Your task to perform on an android device: toggle location history Image 0: 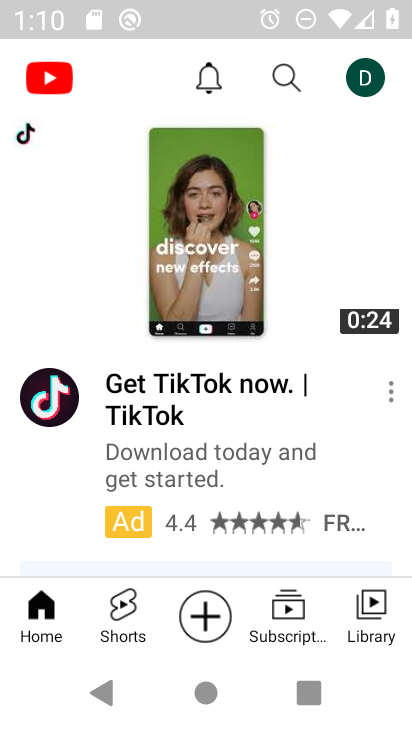
Step 0: press home button
Your task to perform on an android device: toggle location history Image 1: 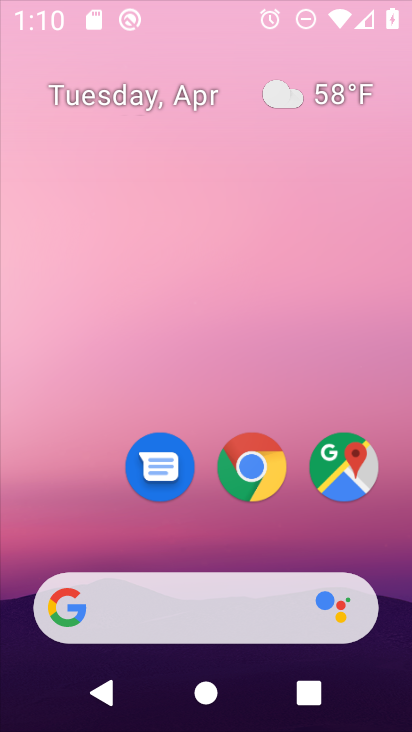
Step 1: drag from (162, 76) to (185, 452)
Your task to perform on an android device: toggle location history Image 2: 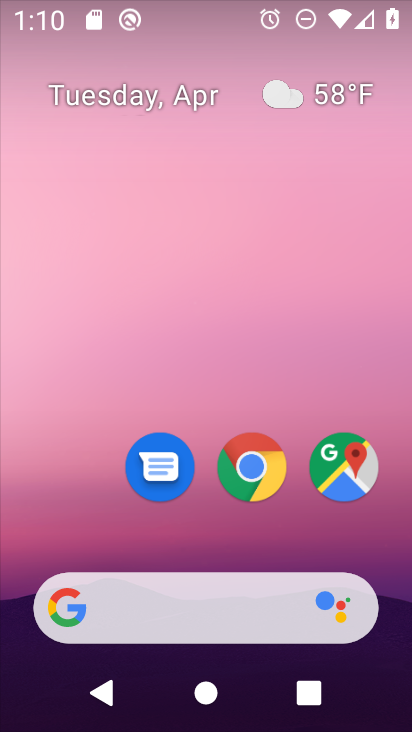
Step 2: drag from (223, 11) to (211, 575)
Your task to perform on an android device: toggle location history Image 3: 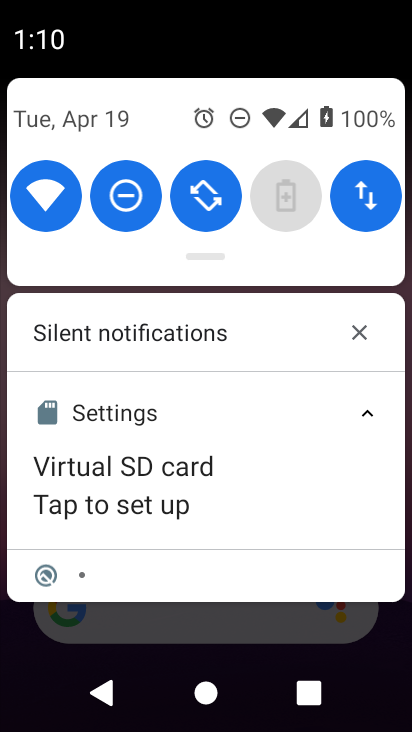
Step 3: drag from (197, 98) to (295, 629)
Your task to perform on an android device: toggle location history Image 4: 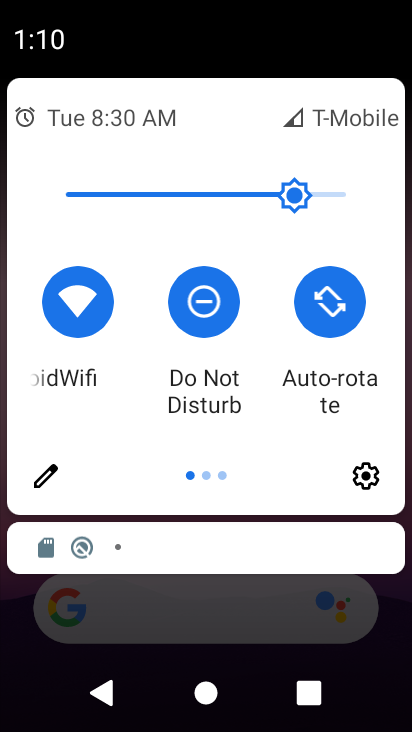
Step 4: click (364, 479)
Your task to perform on an android device: toggle location history Image 5: 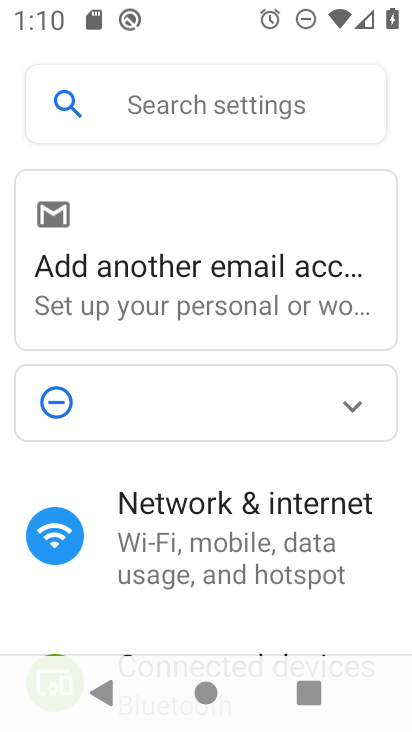
Step 5: drag from (209, 537) to (196, 164)
Your task to perform on an android device: toggle location history Image 6: 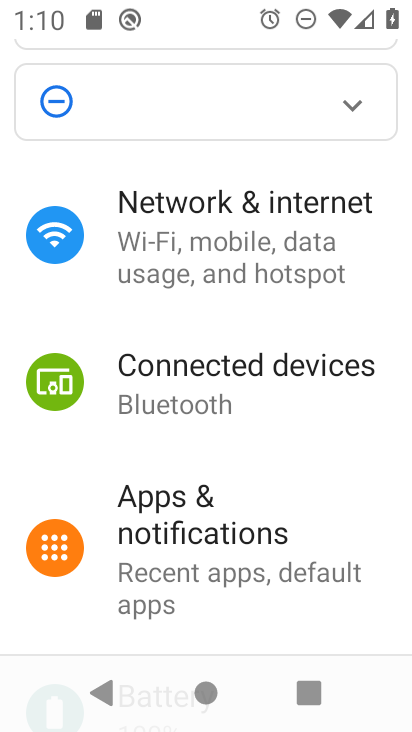
Step 6: drag from (199, 579) to (183, 65)
Your task to perform on an android device: toggle location history Image 7: 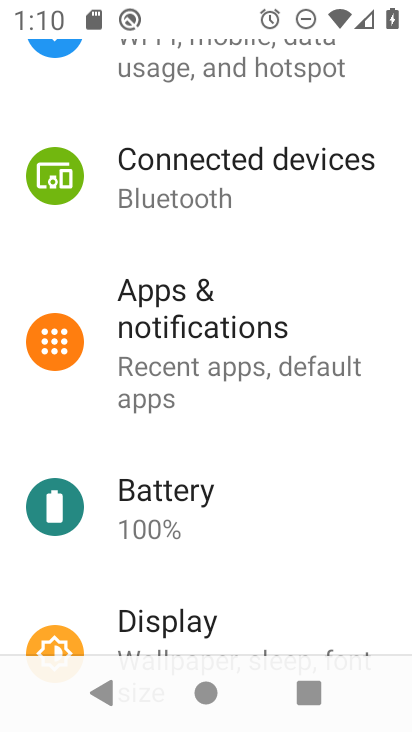
Step 7: drag from (192, 579) to (189, 57)
Your task to perform on an android device: toggle location history Image 8: 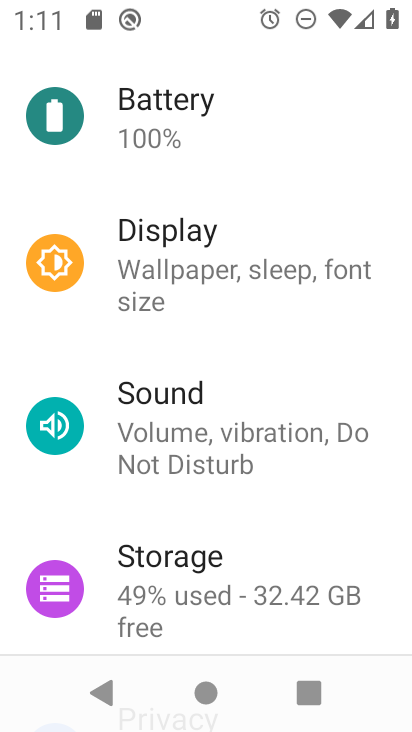
Step 8: drag from (159, 493) to (198, 3)
Your task to perform on an android device: toggle location history Image 9: 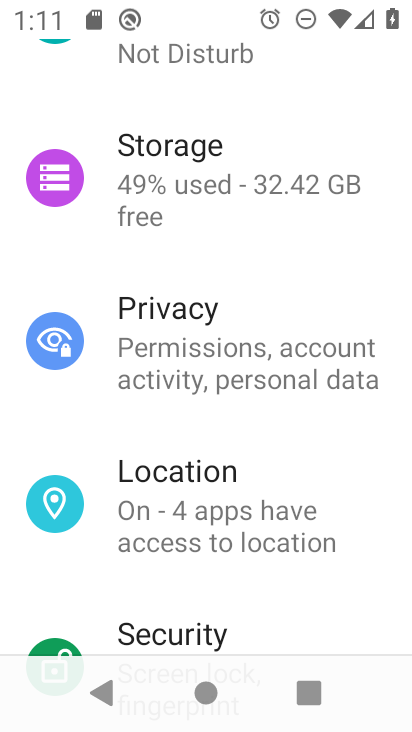
Step 9: click (145, 493)
Your task to perform on an android device: toggle location history Image 10: 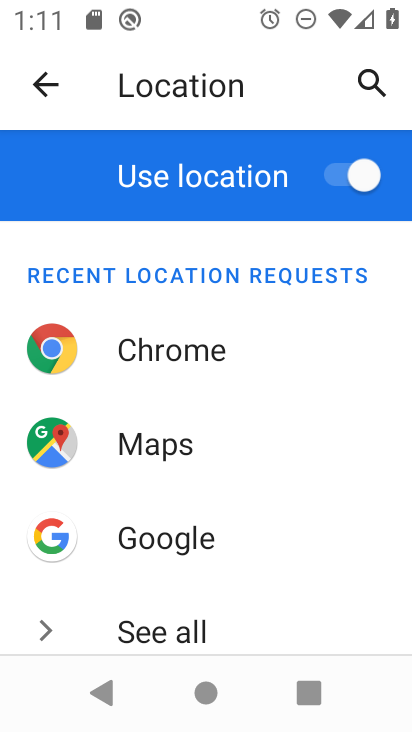
Step 10: drag from (219, 577) to (241, 83)
Your task to perform on an android device: toggle location history Image 11: 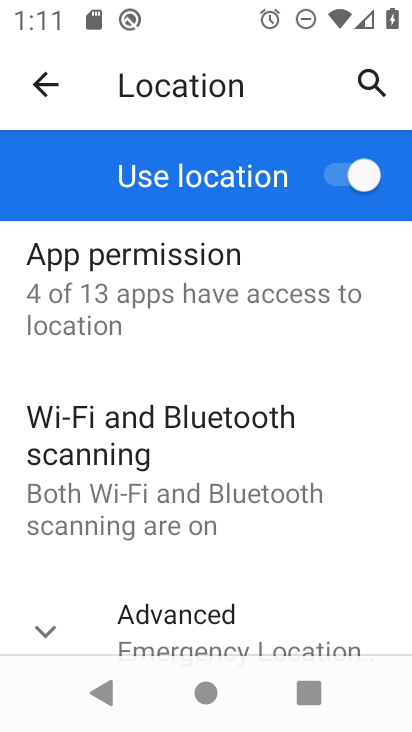
Step 11: drag from (263, 322) to (237, 589)
Your task to perform on an android device: toggle location history Image 12: 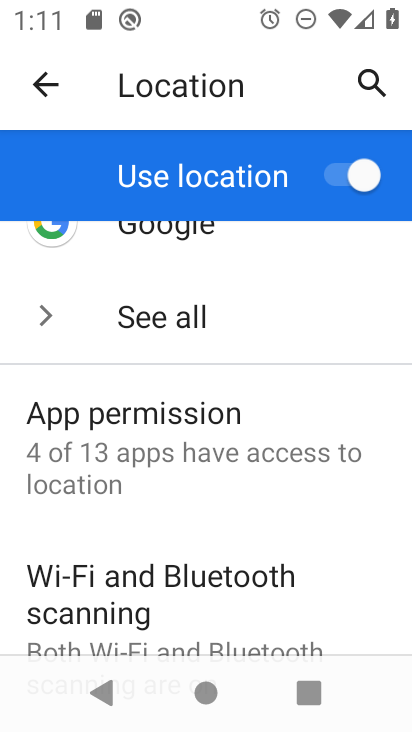
Step 12: drag from (177, 526) to (160, 187)
Your task to perform on an android device: toggle location history Image 13: 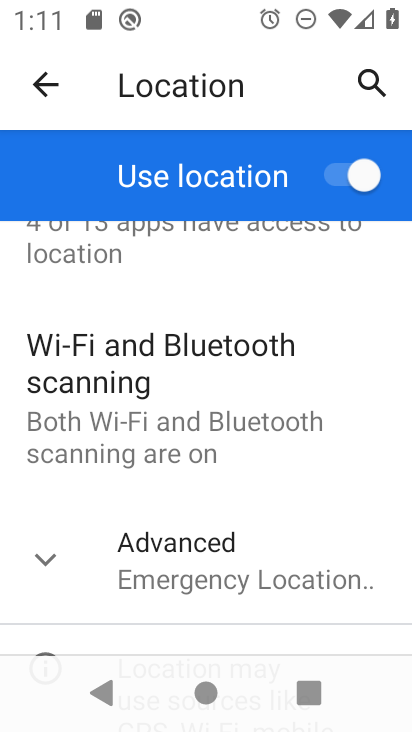
Step 13: click (159, 561)
Your task to perform on an android device: toggle location history Image 14: 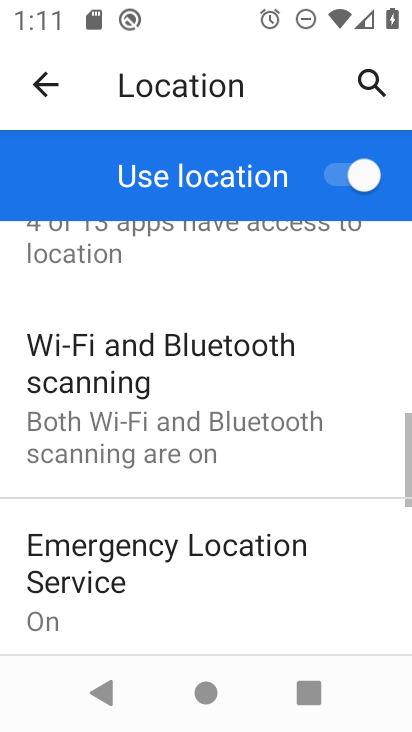
Step 14: drag from (212, 595) to (222, 130)
Your task to perform on an android device: toggle location history Image 15: 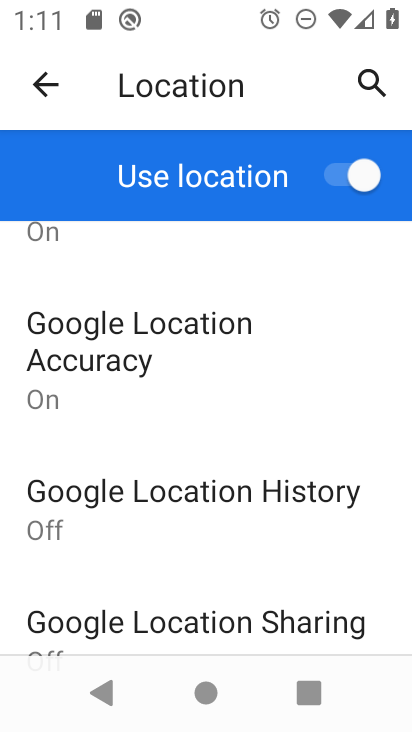
Step 15: click (258, 499)
Your task to perform on an android device: toggle location history Image 16: 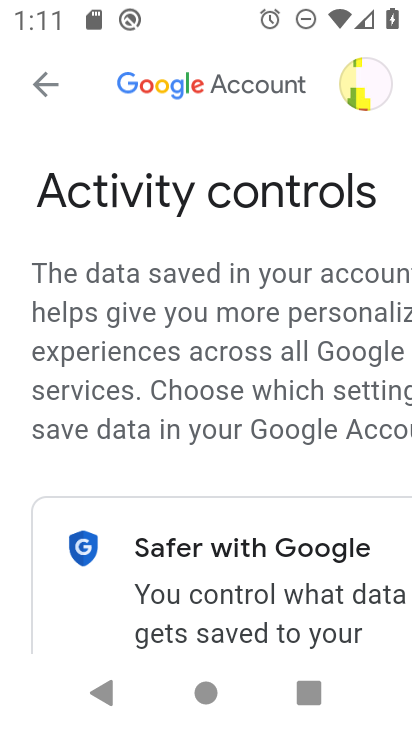
Step 16: drag from (163, 571) to (191, 9)
Your task to perform on an android device: toggle location history Image 17: 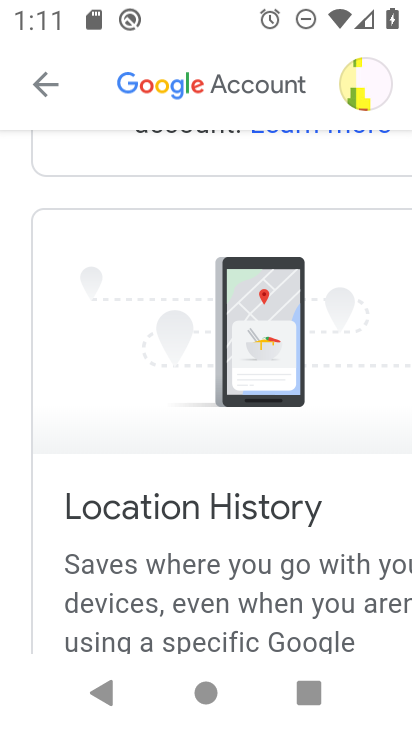
Step 17: drag from (165, 585) to (213, 11)
Your task to perform on an android device: toggle location history Image 18: 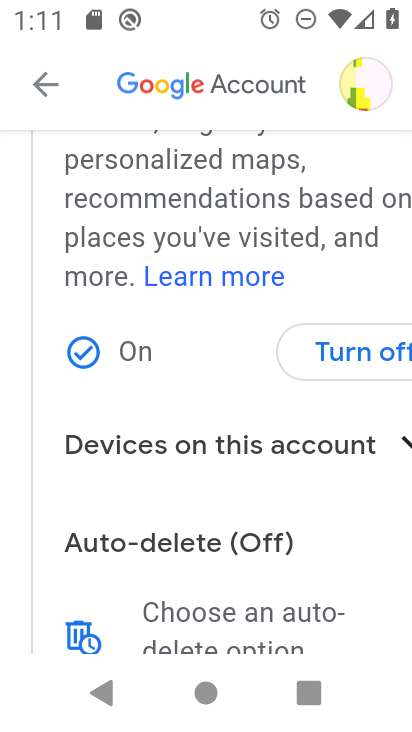
Step 18: click (340, 368)
Your task to perform on an android device: toggle location history Image 19: 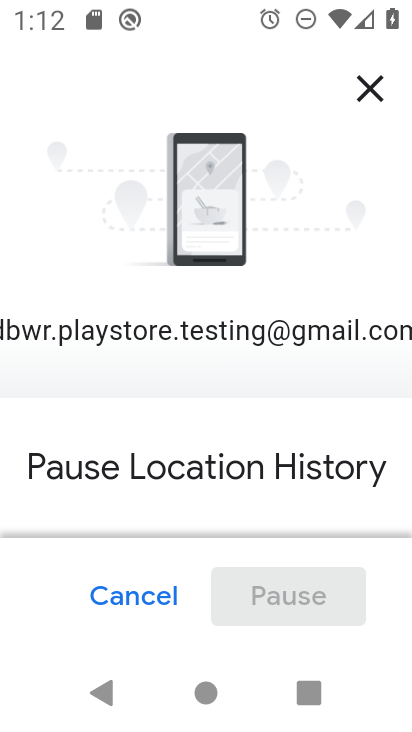
Step 19: drag from (205, 435) to (194, 1)
Your task to perform on an android device: toggle location history Image 20: 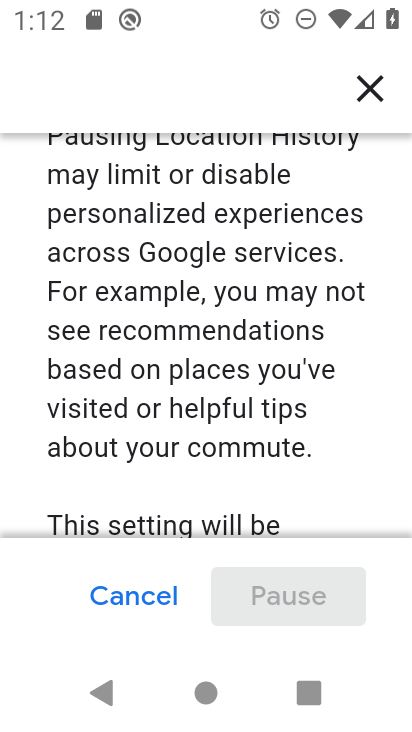
Step 20: drag from (205, 443) to (226, 132)
Your task to perform on an android device: toggle location history Image 21: 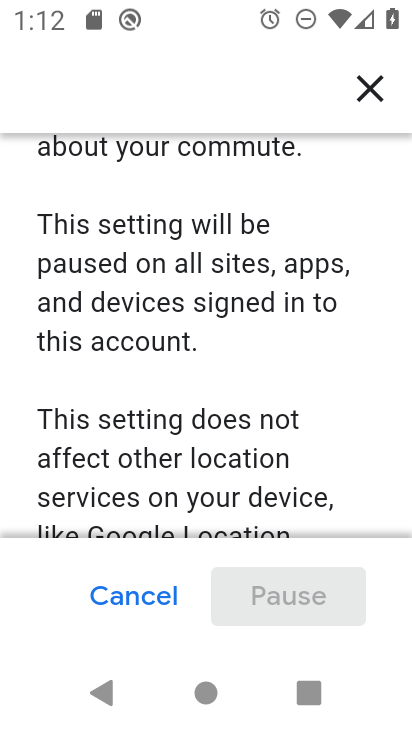
Step 21: drag from (193, 442) to (216, 48)
Your task to perform on an android device: toggle location history Image 22: 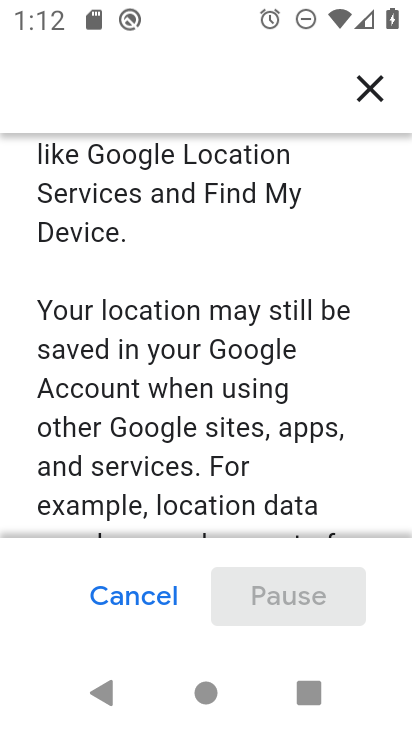
Step 22: drag from (232, 399) to (259, 69)
Your task to perform on an android device: toggle location history Image 23: 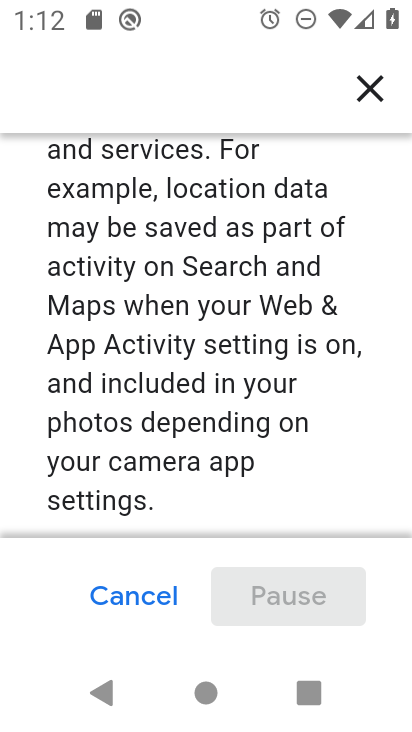
Step 23: drag from (256, 399) to (228, 62)
Your task to perform on an android device: toggle location history Image 24: 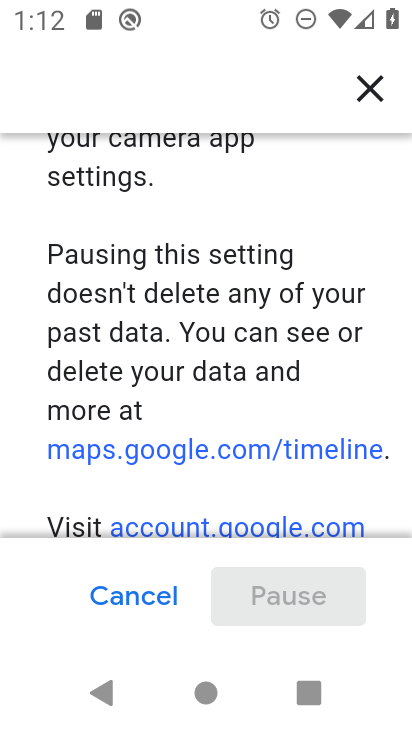
Step 24: drag from (238, 424) to (239, 158)
Your task to perform on an android device: toggle location history Image 25: 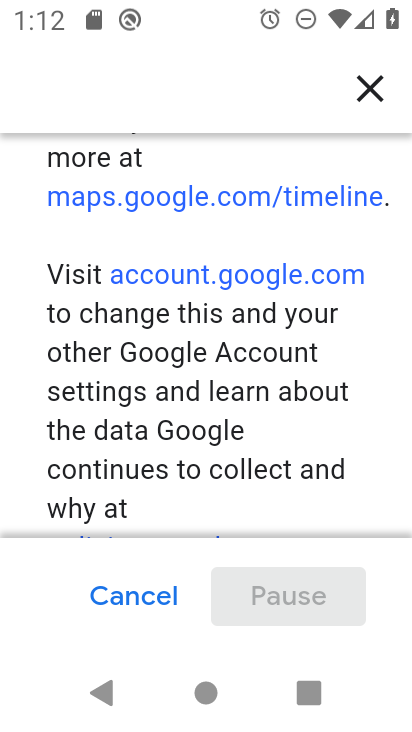
Step 25: drag from (267, 426) to (244, 140)
Your task to perform on an android device: toggle location history Image 26: 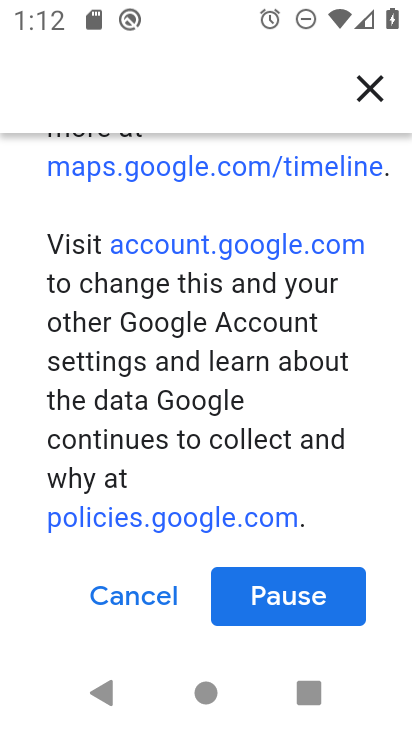
Step 26: click (285, 590)
Your task to perform on an android device: toggle location history Image 27: 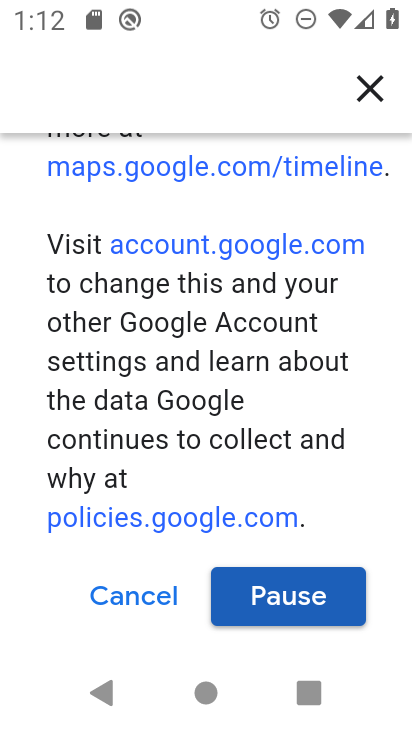
Step 27: click (285, 590)
Your task to perform on an android device: toggle location history Image 28: 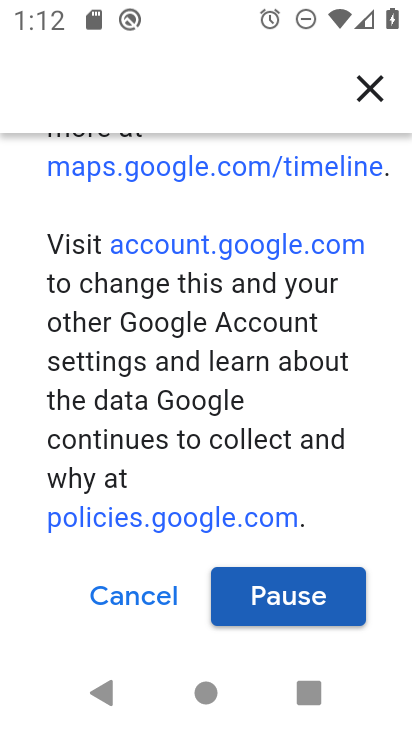
Step 28: click (278, 588)
Your task to perform on an android device: toggle location history Image 29: 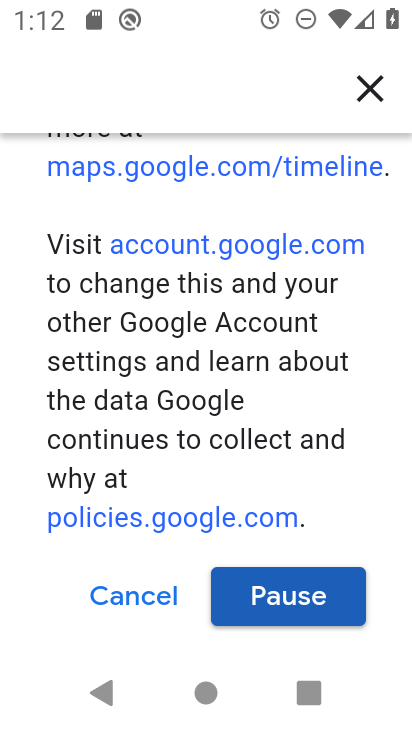
Step 29: click (295, 597)
Your task to perform on an android device: toggle location history Image 30: 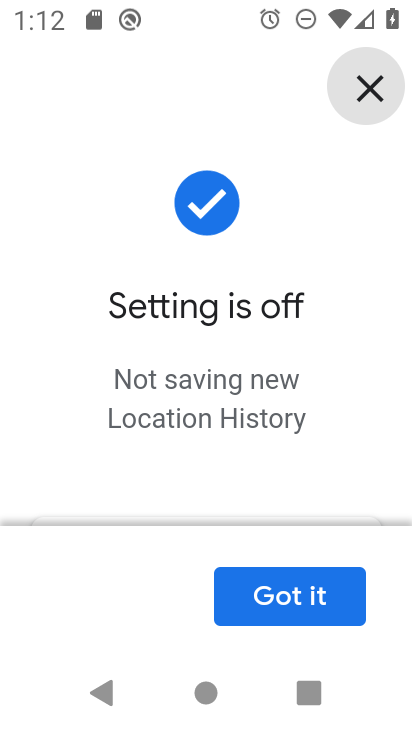
Step 30: click (295, 597)
Your task to perform on an android device: toggle location history Image 31: 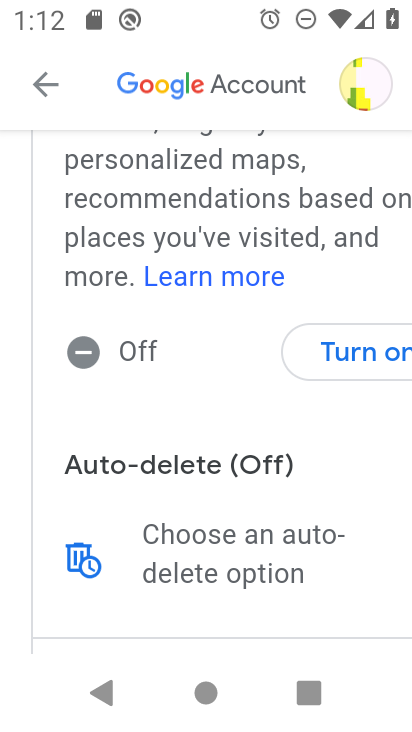
Step 31: task complete